Your task to perform on an android device: turn notification dots off Image 0: 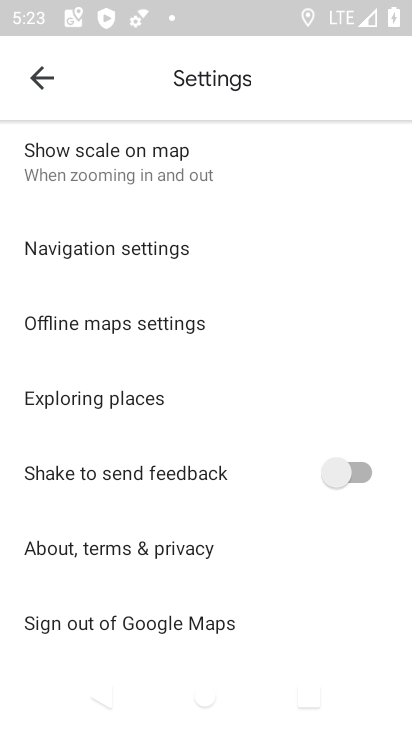
Step 0: press home button
Your task to perform on an android device: turn notification dots off Image 1: 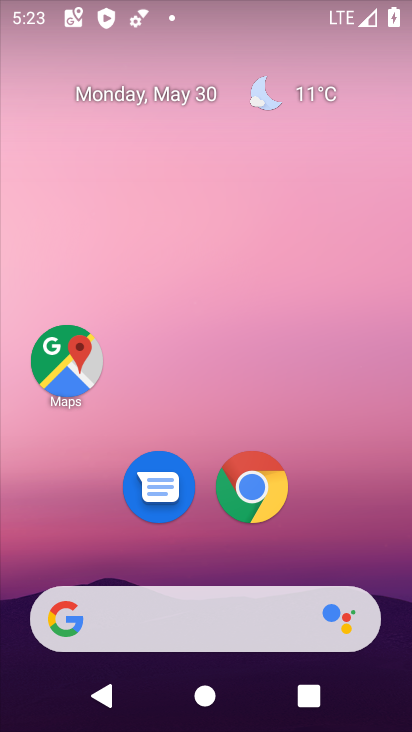
Step 1: drag from (387, 587) to (276, 95)
Your task to perform on an android device: turn notification dots off Image 2: 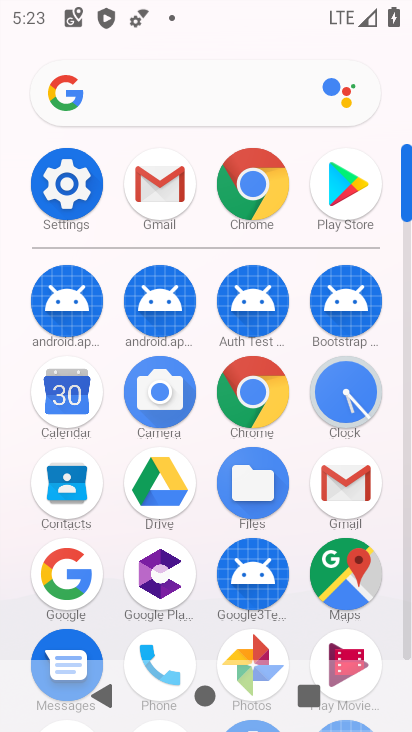
Step 2: click (410, 648)
Your task to perform on an android device: turn notification dots off Image 3: 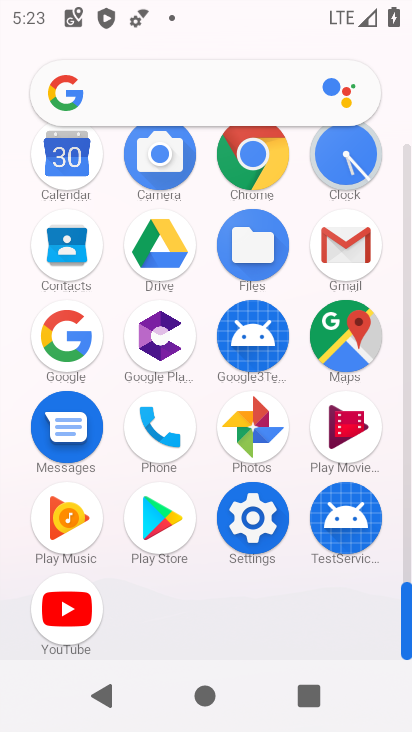
Step 3: click (256, 514)
Your task to perform on an android device: turn notification dots off Image 4: 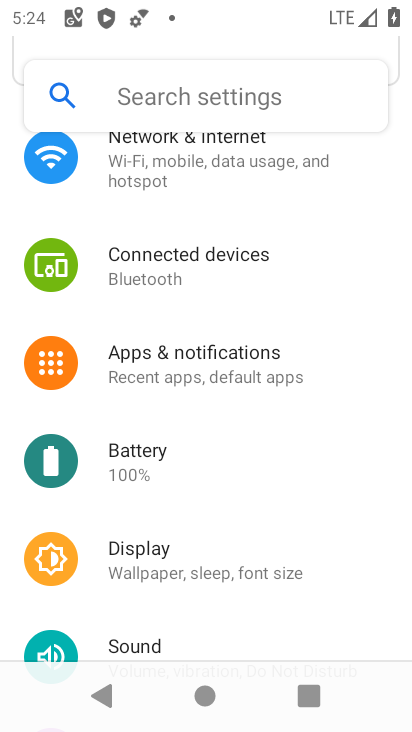
Step 4: click (162, 362)
Your task to perform on an android device: turn notification dots off Image 5: 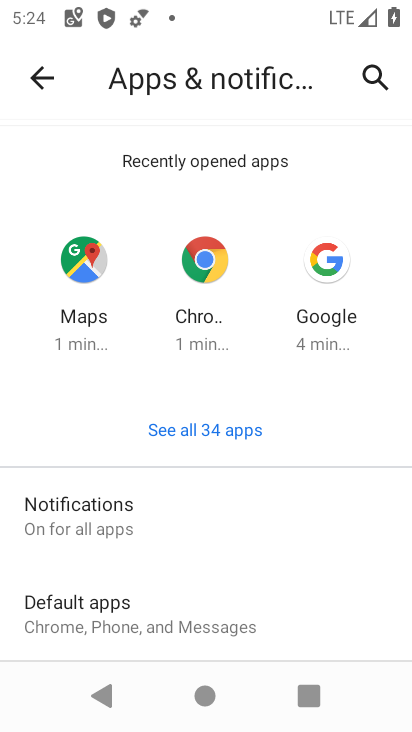
Step 5: click (146, 509)
Your task to perform on an android device: turn notification dots off Image 6: 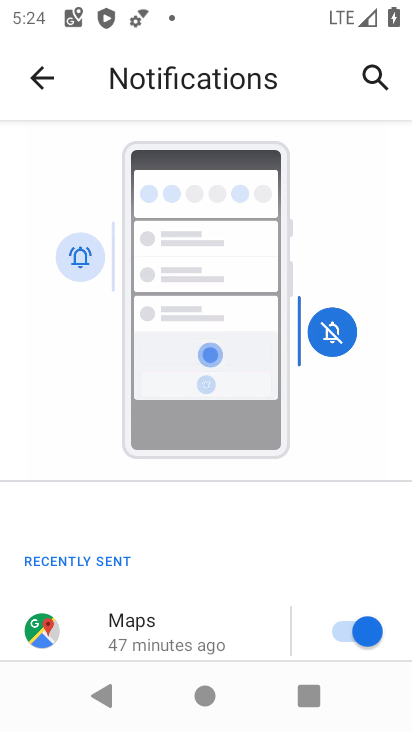
Step 6: drag from (272, 615) to (224, 141)
Your task to perform on an android device: turn notification dots off Image 7: 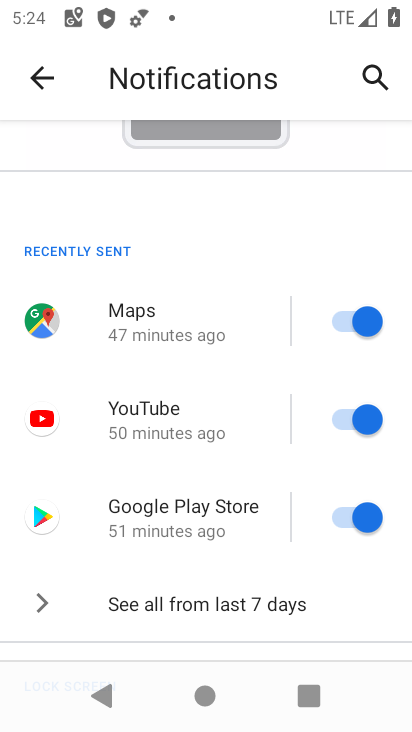
Step 7: drag from (291, 583) to (217, 91)
Your task to perform on an android device: turn notification dots off Image 8: 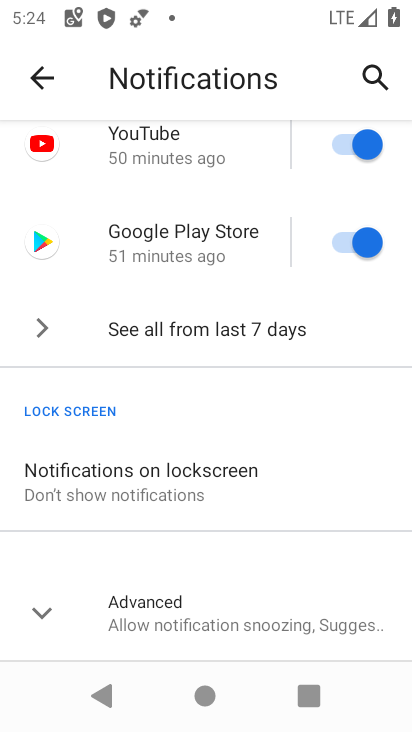
Step 8: click (51, 609)
Your task to perform on an android device: turn notification dots off Image 9: 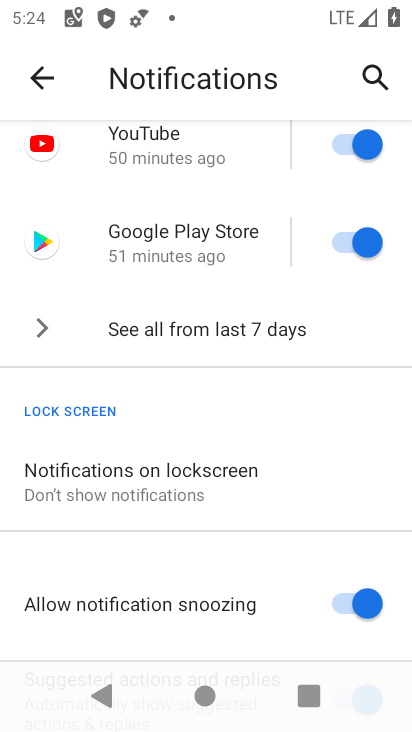
Step 9: task complete